Your task to perform on an android device: turn off priority inbox in the gmail app Image 0: 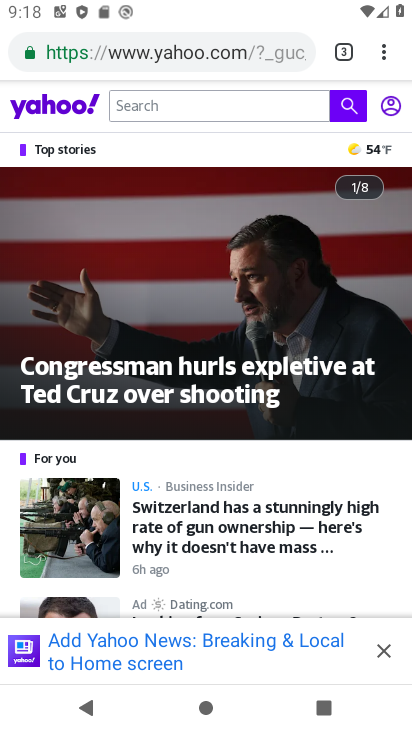
Step 0: task complete